Your task to perform on an android device: Go to Yahoo.com Image 0: 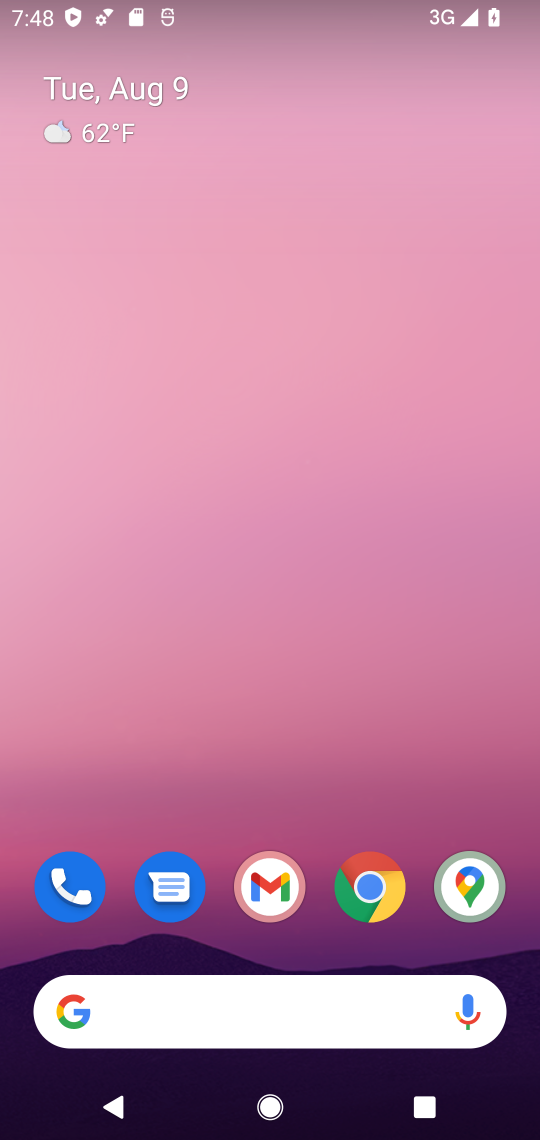
Step 0: click (292, 1011)
Your task to perform on an android device: Go to Yahoo.com Image 1: 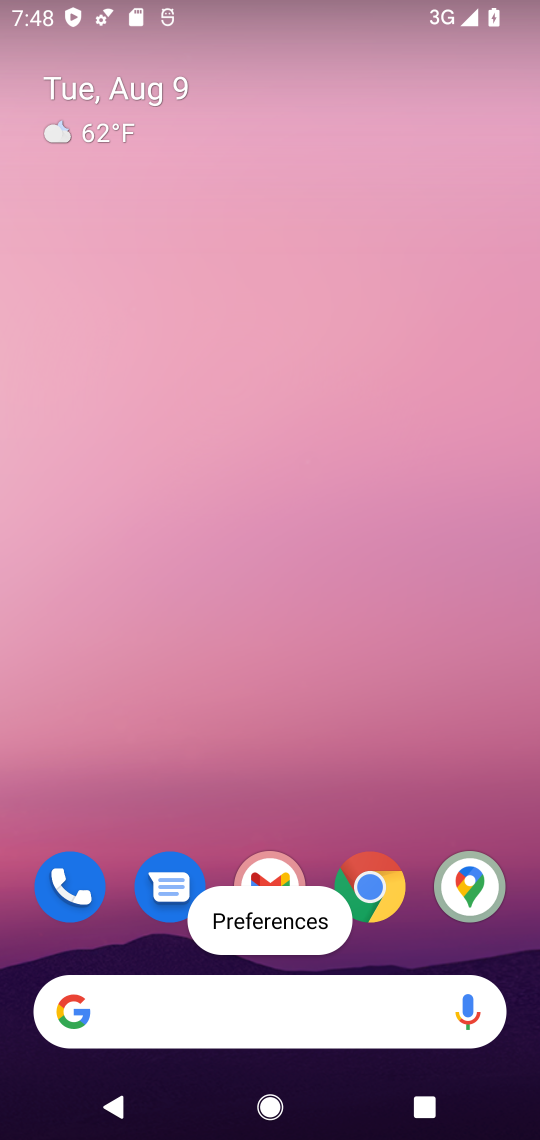
Step 1: click (292, 1013)
Your task to perform on an android device: Go to Yahoo.com Image 2: 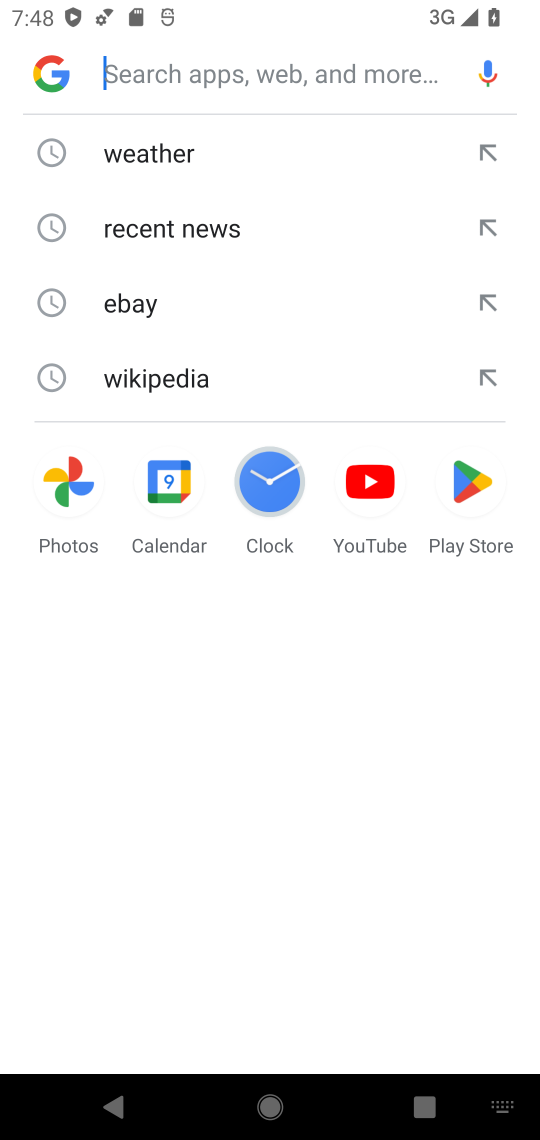
Step 2: type "yahoo.com"
Your task to perform on an android device: Go to Yahoo.com Image 3: 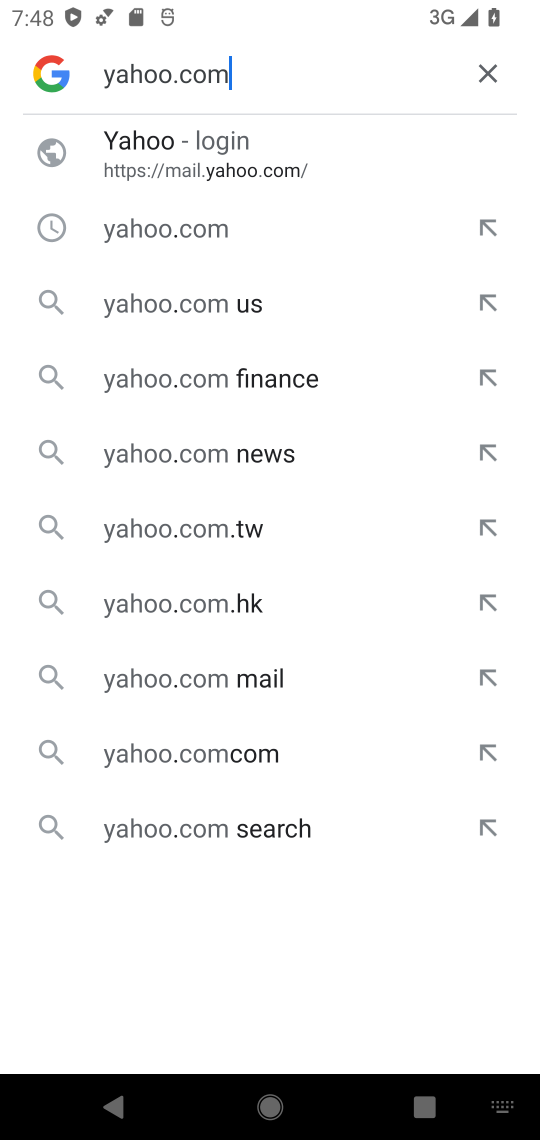
Step 3: click (219, 230)
Your task to perform on an android device: Go to Yahoo.com Image 4: 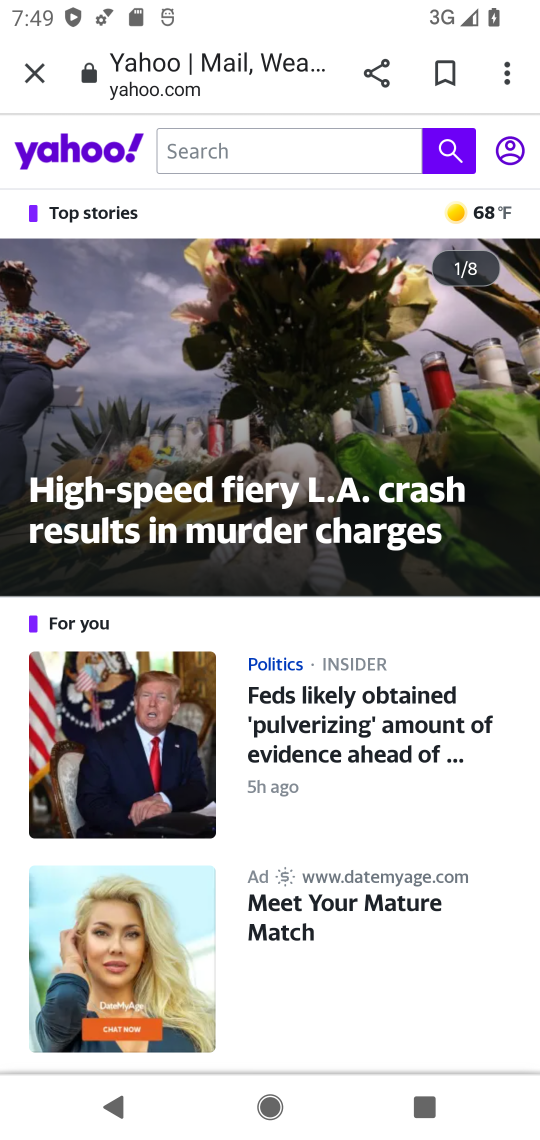
Step 4: task complete